Your task to perform on an android device: turn off airplane mode Image 0: 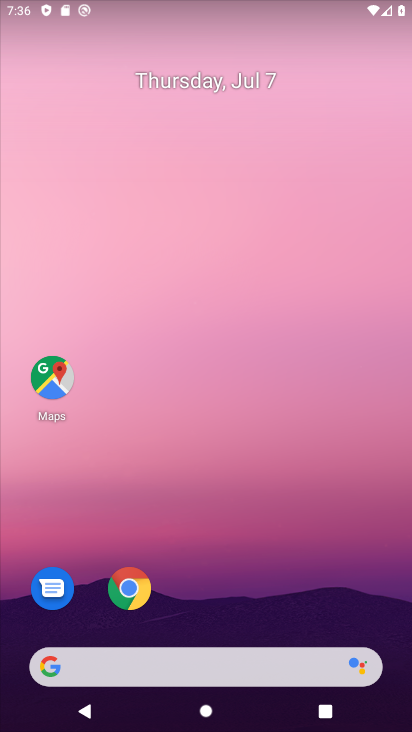
Step 0: drag from (257, 657) to (286, 238)
Your task to perform on an android device: turn off airplane mode Image 1: 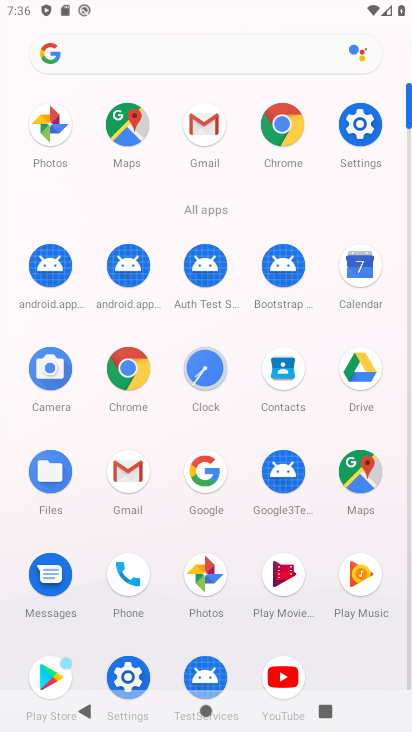
Step 1: click (363, 124)
Your task to perform on an android device: turn off airplane mode Image 2: 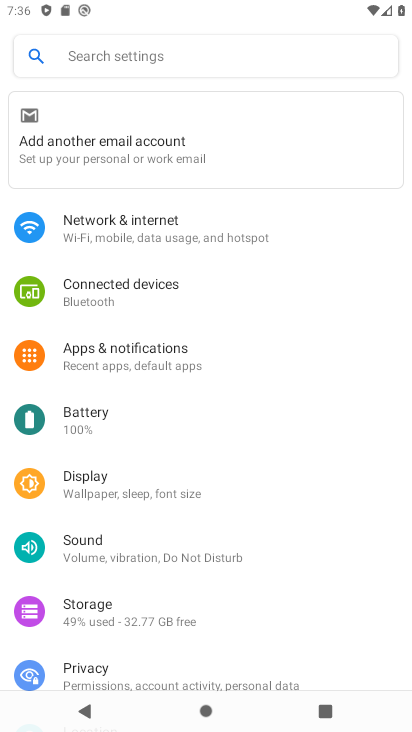
Step 2: click (130, 233)
Your task to perform on an android device: turn off airplane mode Image 3: 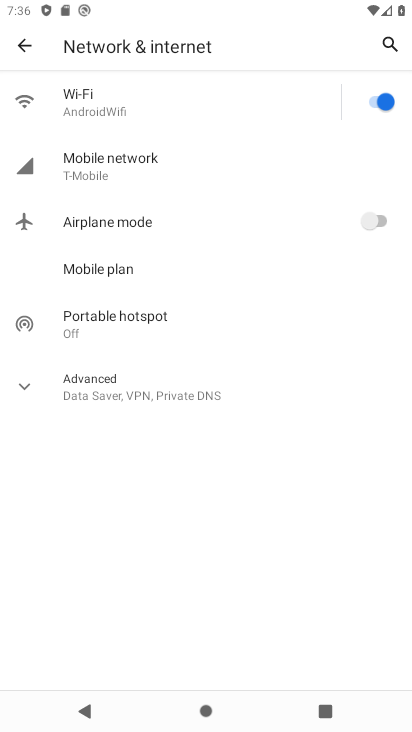
Step 3: click (380, 94)
Your task to perform on an android device: turn off airplane mode Image 4: 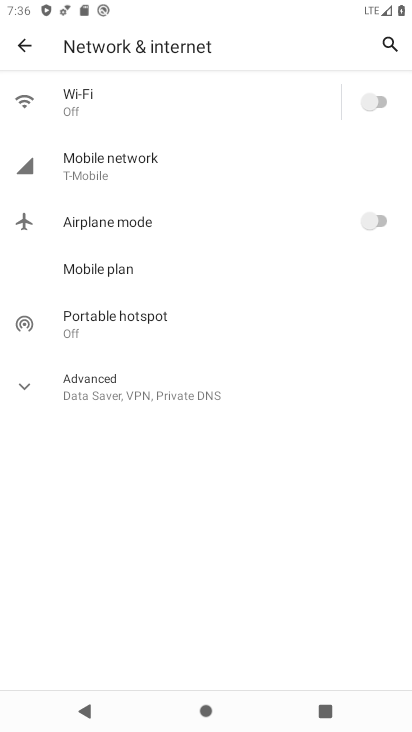
Step 4: task complete